Your task to perform on an android device: Search for pizza restaurants on Maps Image 0: 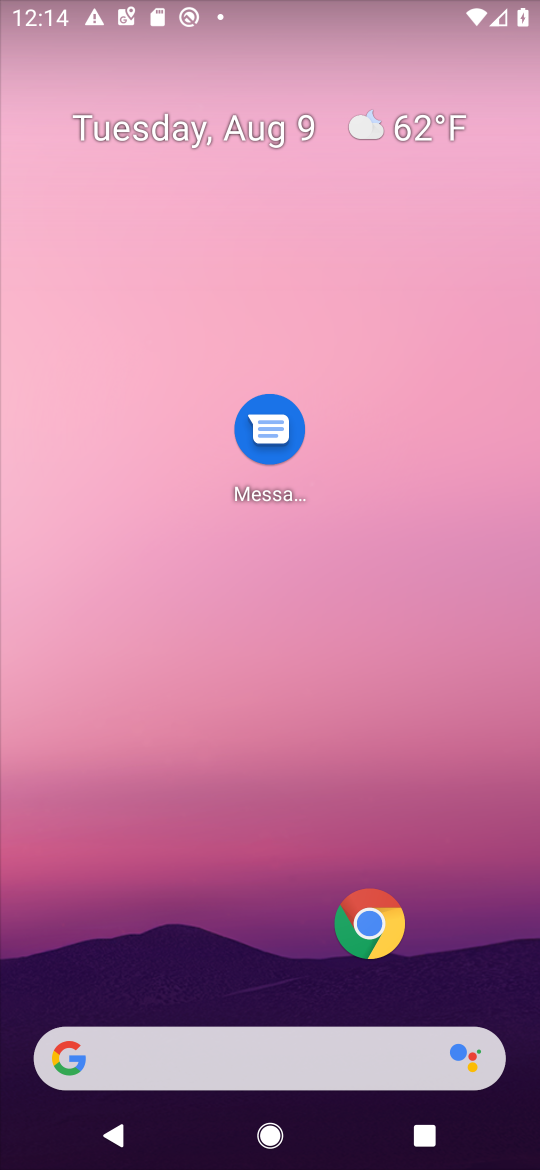
Step 0: drag from (30, 1135) to (319, 479)
Your task to perform on an android device: Search for pizza restaurants on Maps Image 1: 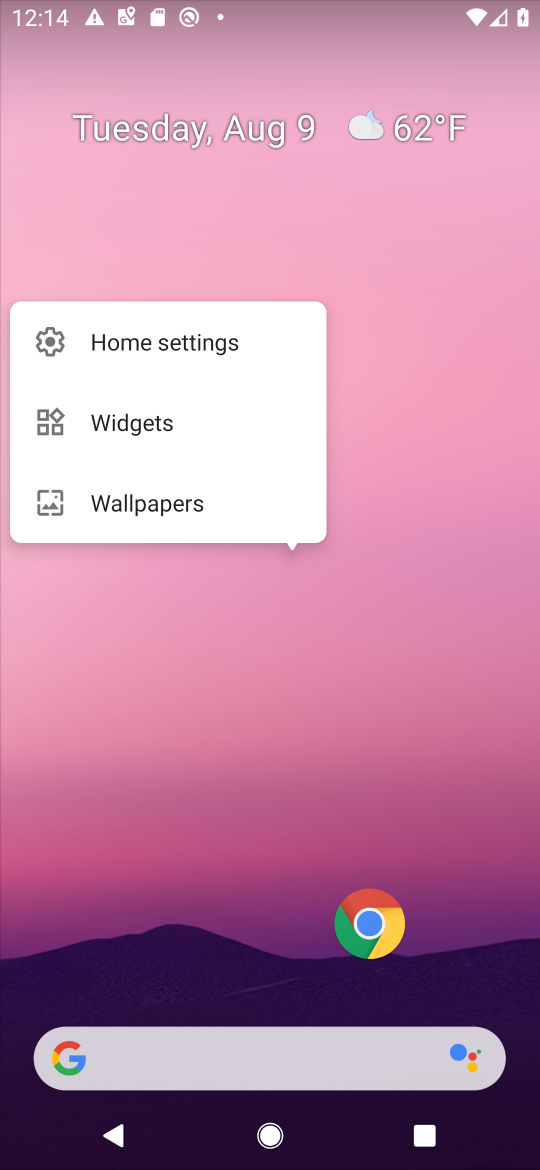
Step 1: drag from (63, 1127) to (328, 405)
Your task to perform on an android device: Search for pizza restaurants on Maps Image 2: 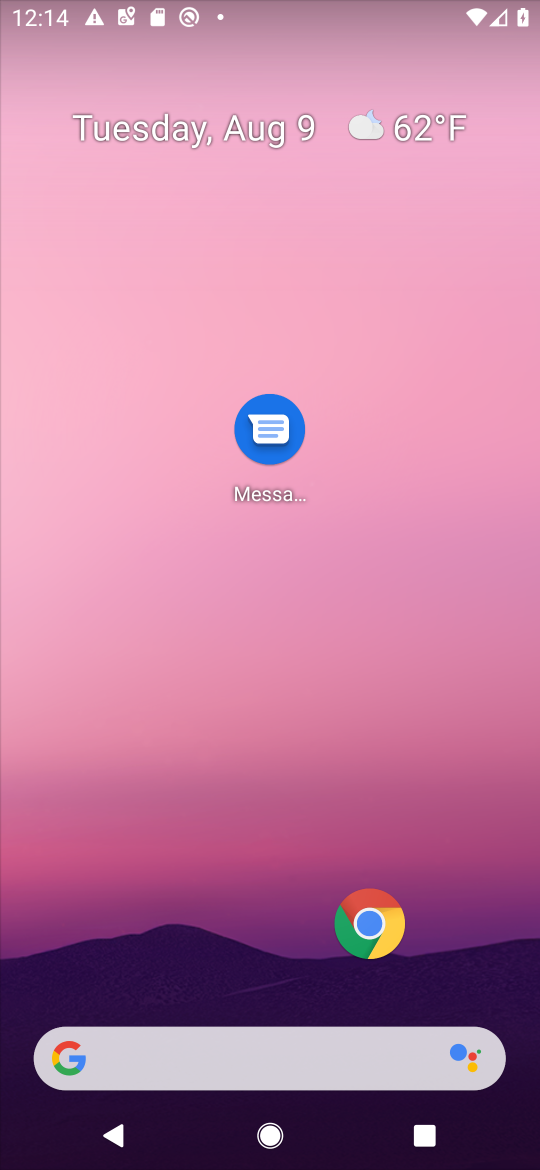
Step 2: drag from (56, 1098) to (474, 394)
Your task to perform on an android device: Search for pizza restaurants on Maps Image 3: 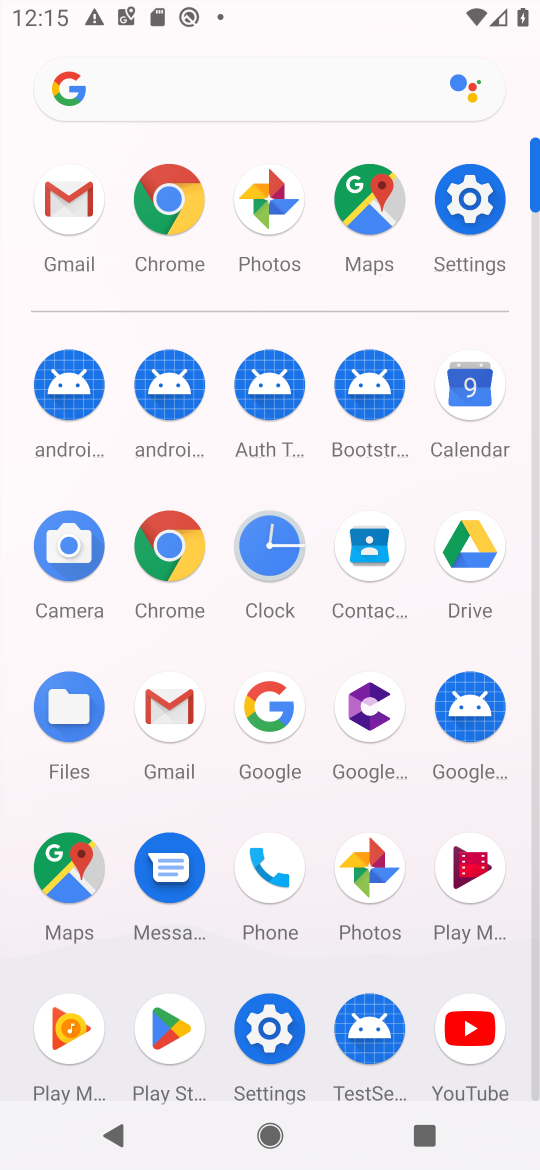
Step 3: click (60, 846)
Your task to perform on an android device: Search for pizza restaurants on Maps Image 4: 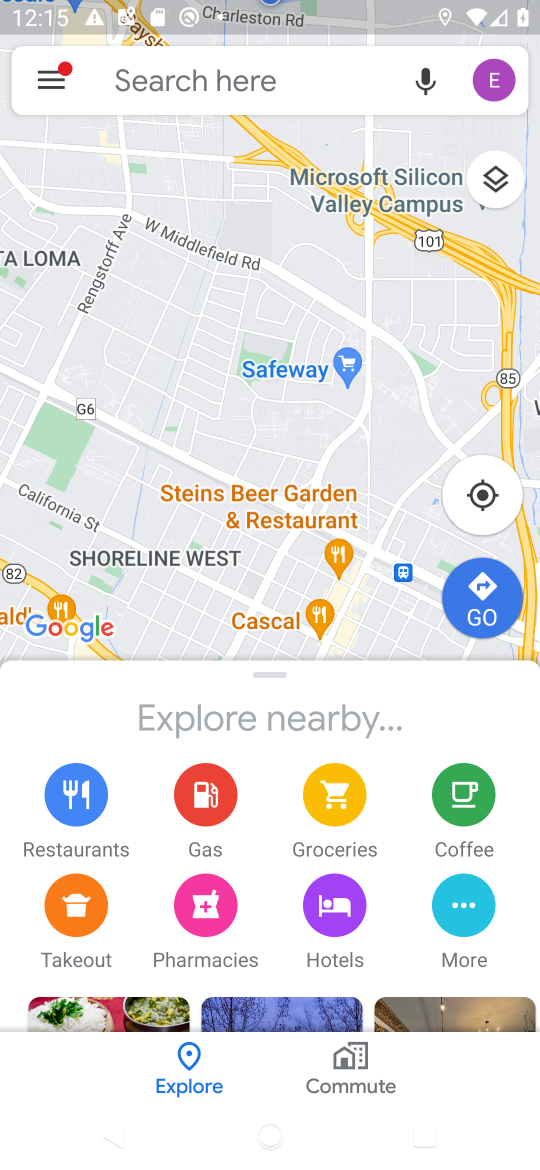
Step 4: click (154, 72)
Your task to perform on an android device: Search for pizza restaurants on Maps Image 5: 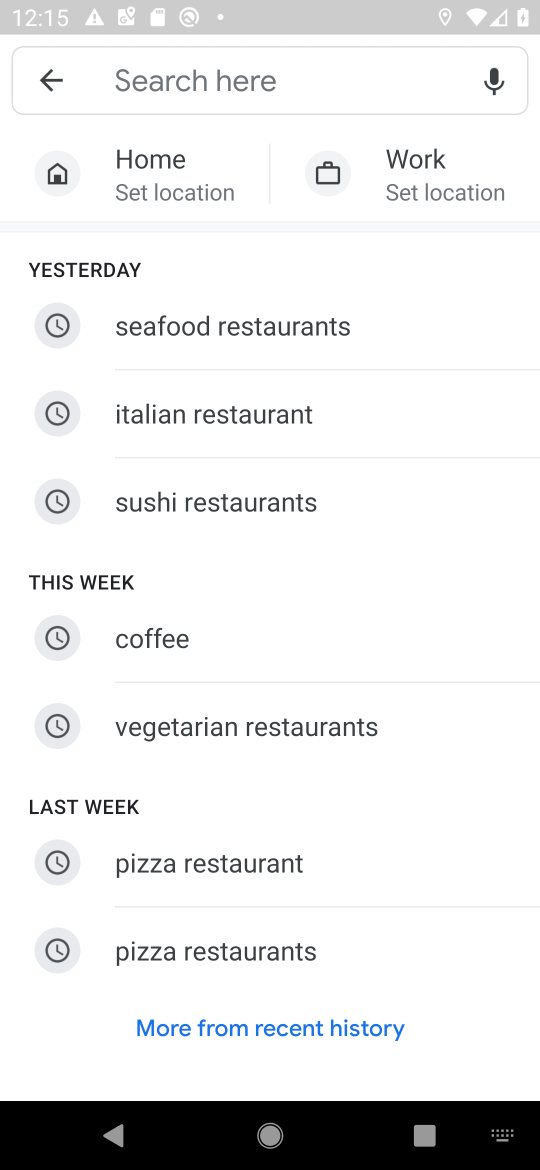
Step 5: click (190, 861)
Your task to perform on an android device: Search for pizza restaurants on Maps Image 6: 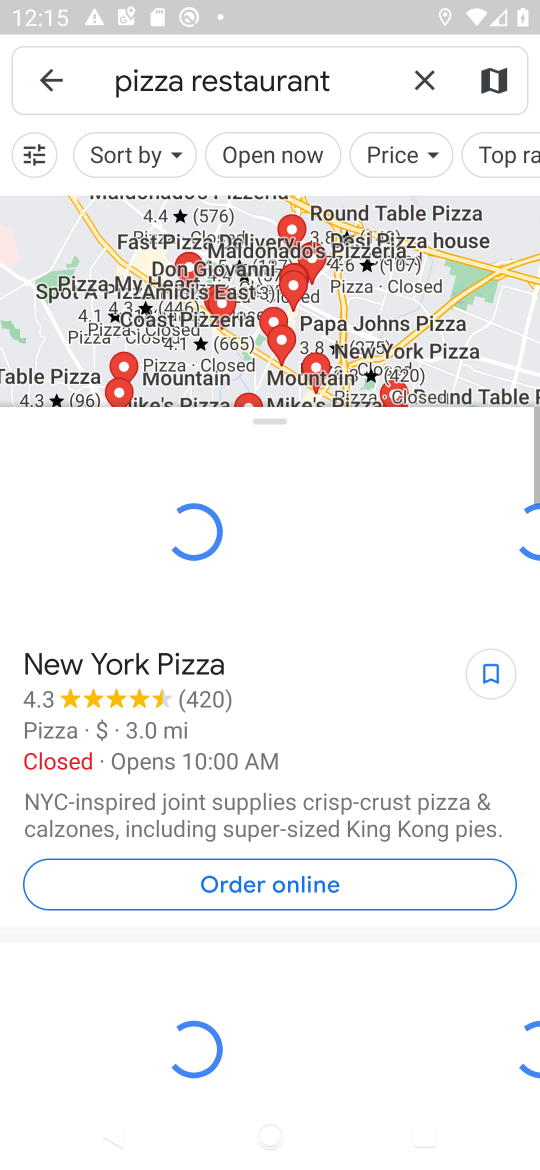
Step 6: task complete